Your task to perform on an android device: open wifi settings Image 0: 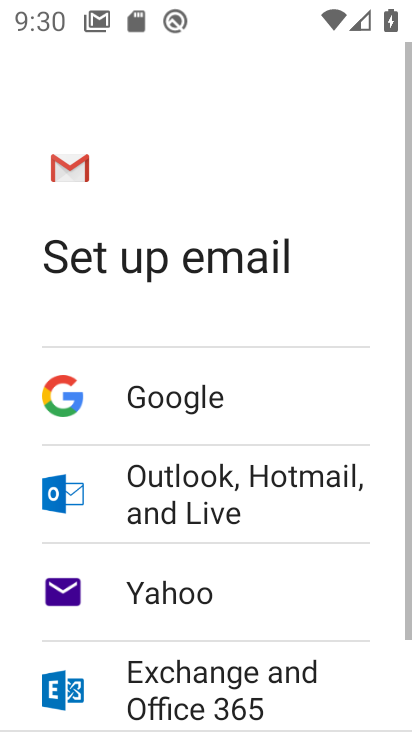
Step 0: press home button
Your task to perform on an android device: open wifi settings Image 1: 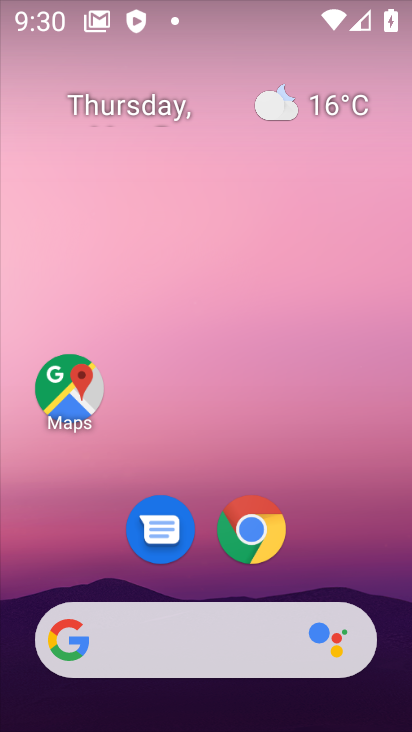
Step 1: drag from (363, 582) to (94, 207)
Your task to perform on an android device: open wifi settings Image 2: 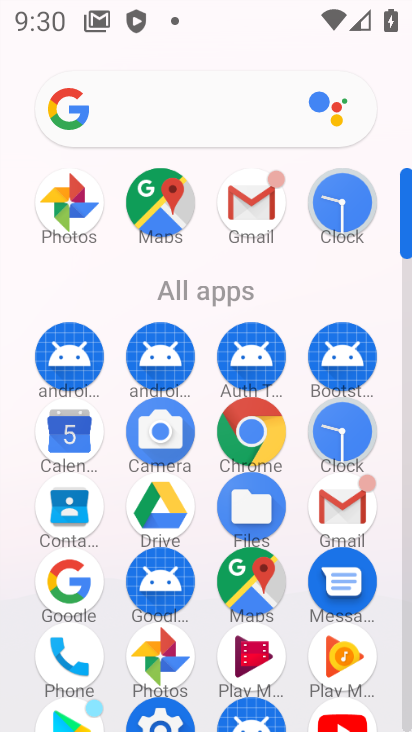
Step 2: drag from (291, 577) to (257, 175)
Your task to perform on an android device: open wifi settings Image 3: 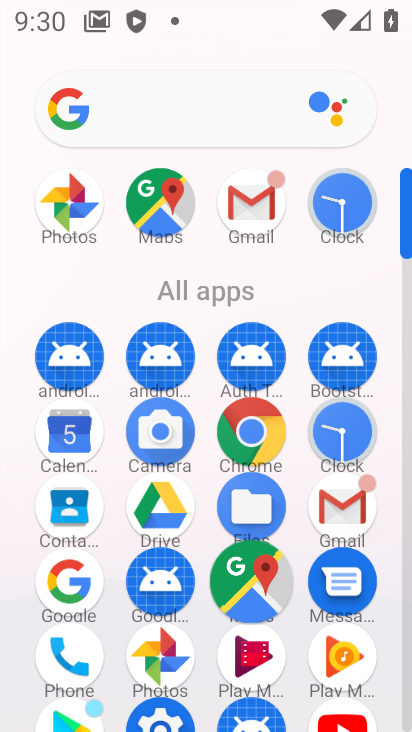
Step 3: drag from (290, 471) to (250, 36)
Your task to perform on an android device: open wifi settings Image 4: 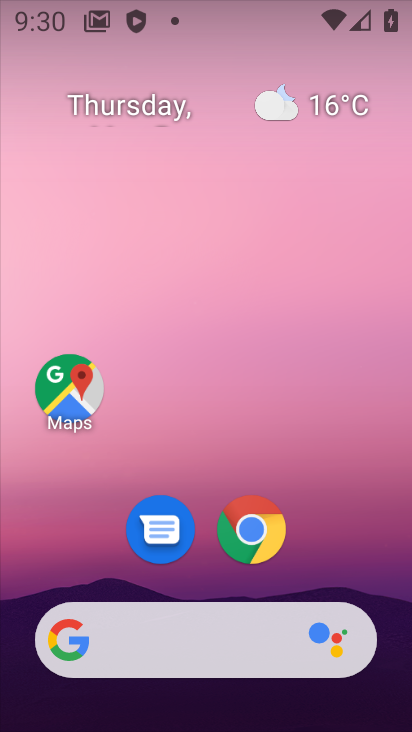
Step 4: click (318, 87)
Your task to perform on an android device: open wifi settings Image 5: 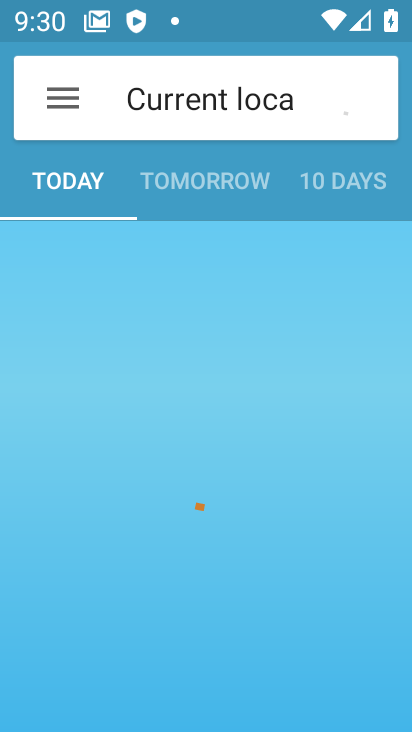
Step 5: drag from (323, 540) to (245, 40)
Your task to perform on an android device: open wifi settings Image 6: 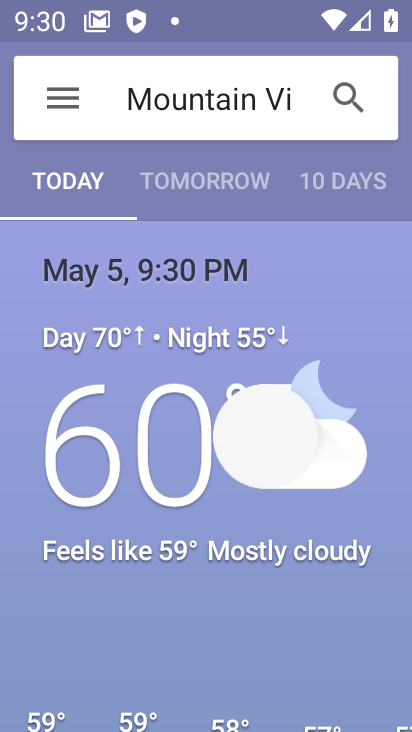
Step 6: press home button
Your task to perform on an android device: open wifi settings Image 7: 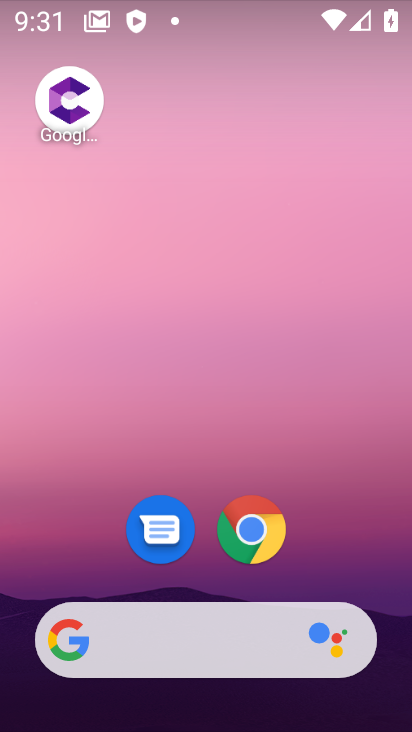
Step 7: drag from (318, 514) to (160, 6)
Your task to perform on an android device: open wifi settings Image 8: 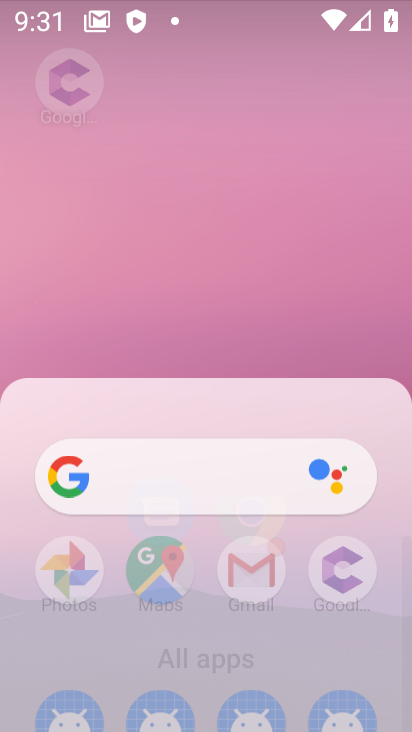
Step 8: drag from (231, 70) to (239, 27)
Your task to perform on an android device: open wifi settings Image 9: 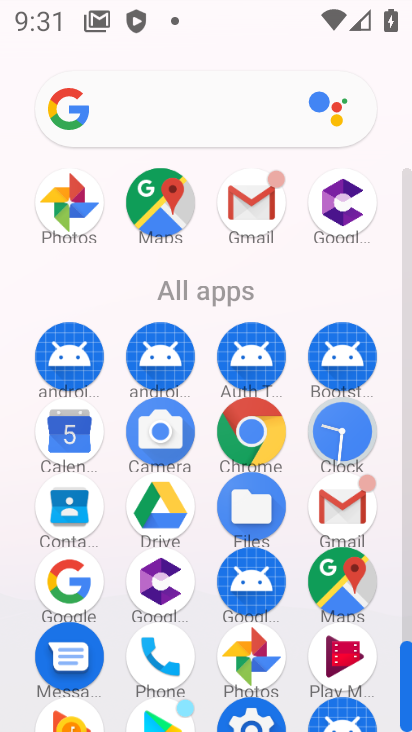
Step 9: drag from (384, 582) to (359, 89)
Your task to perform on an android device: open wifi settings Image 10: 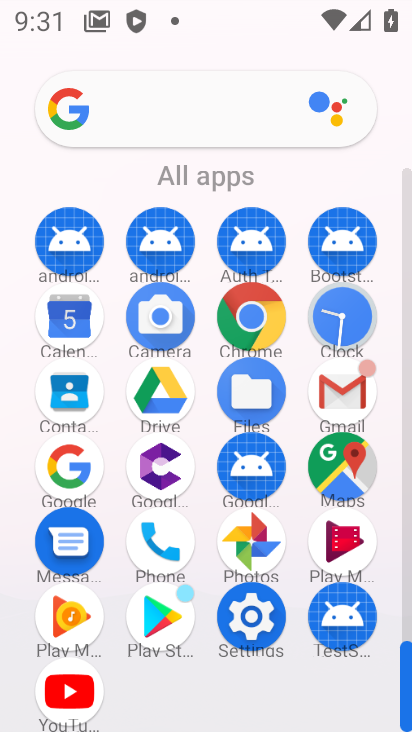
Step 10: click (246, 596)
Your task to perform on an android device: open wifi settings Image 11: 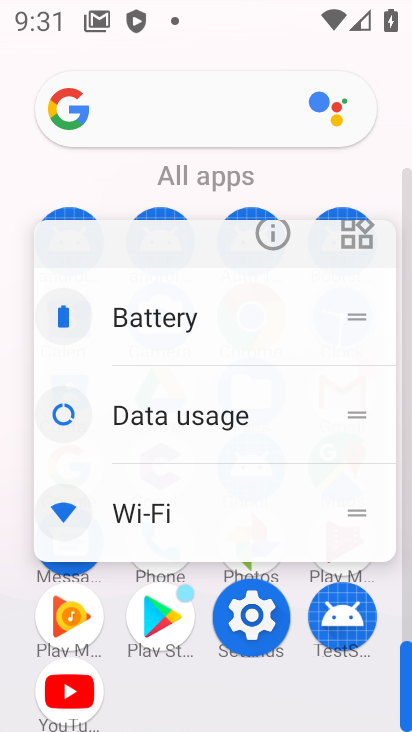
Step 11: click (255, 619)
Your task to perform on an android device: open wifi settings Image 12: 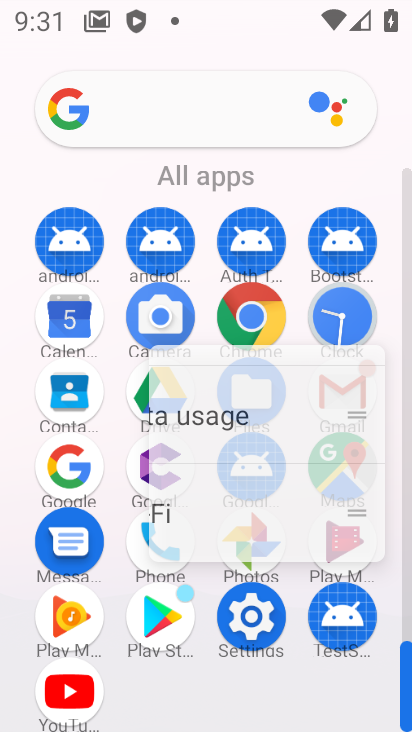
Step 12: click (255, 619)
Your task to perform on an android device: open wifi settings Image 13: 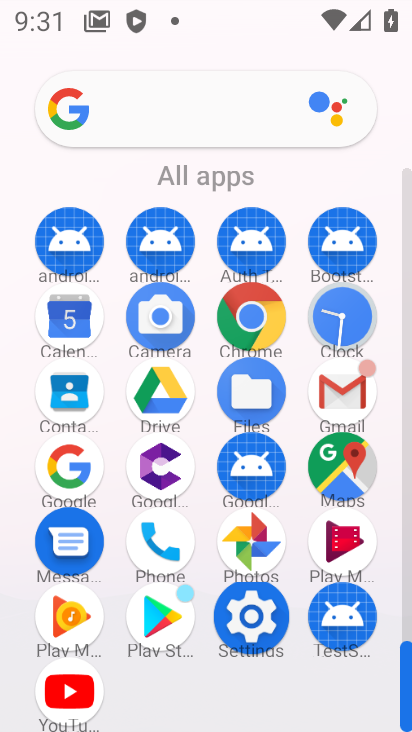
Step 13: click (253, 611)
Your task to perform on an android device: open wifi settings Image 14: 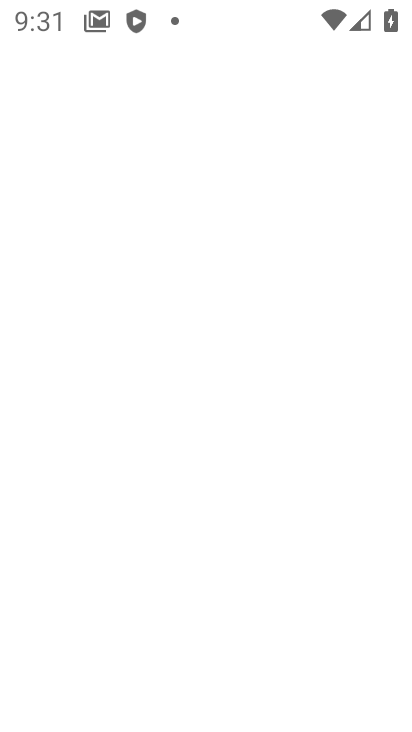
Step 14: click (250, 612)
Your task to perform on an android device: open wifi settings Image 15: 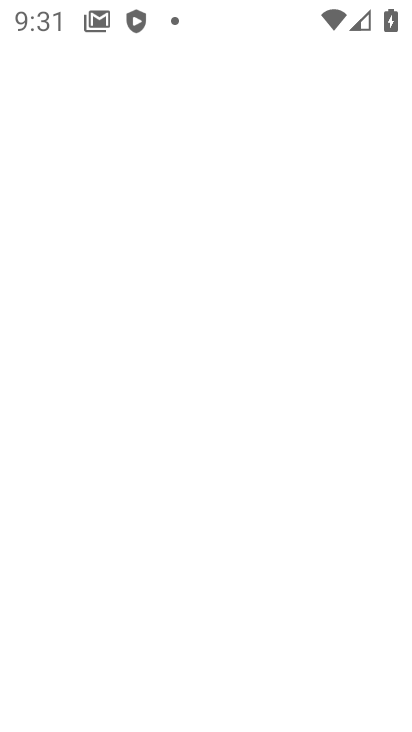
Step 15: click (250, 612)
Your task to perform on an android device: open wifi settings Image 16: 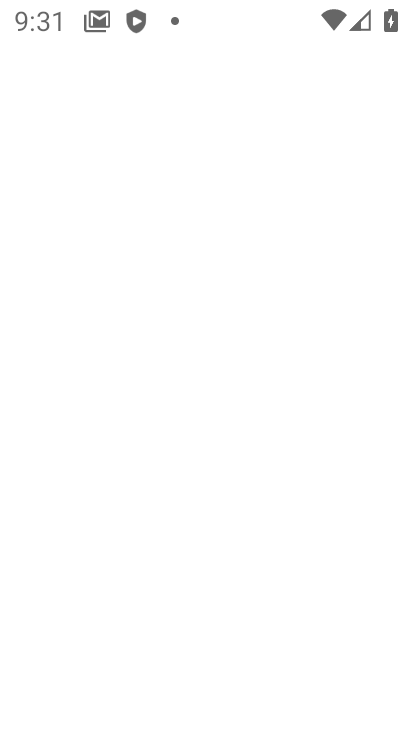
Step 16: click (251, 621)
Your task to perform on an android device: open wifi settings Image 17: 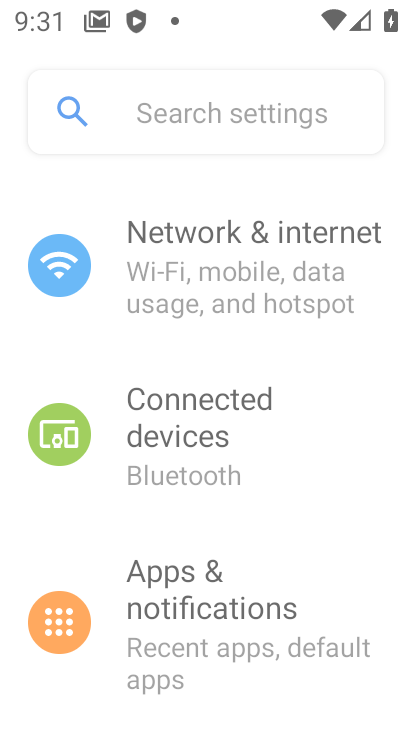
Step 17: click (251, 621)
Your task to perform on an android device: open wifi settings Image 18: 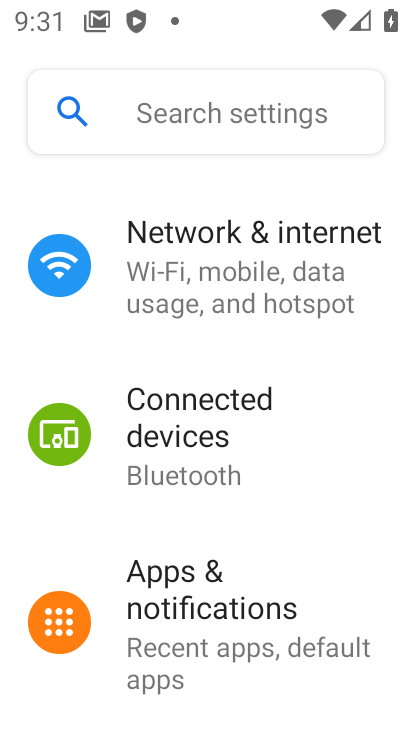
Step 18: click (253, 616)
Your task to perform on an android device: open wifi settings Image 19: 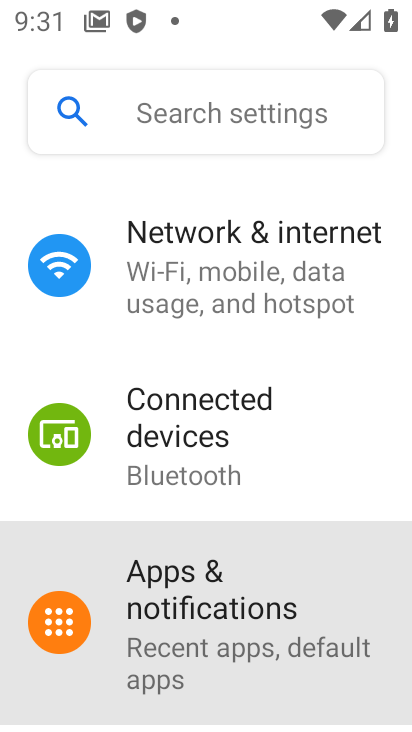
Step 19: click (250, 282)
Your task to perform on an android device: open wifi settings Image 20: 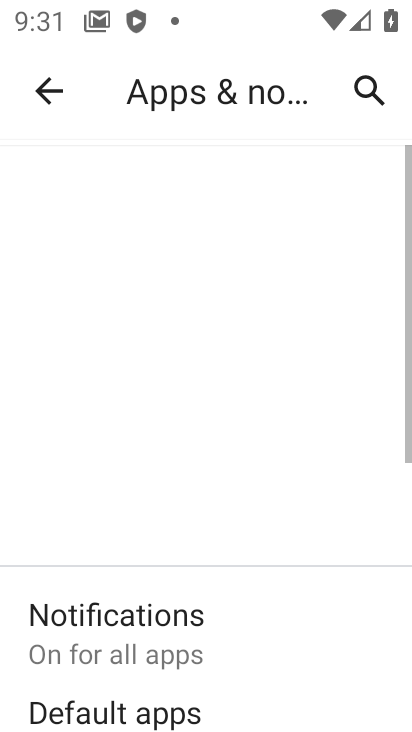
Step 20: click (250, 282)
Your task to perform on an android device: open wifi settings Image 21: 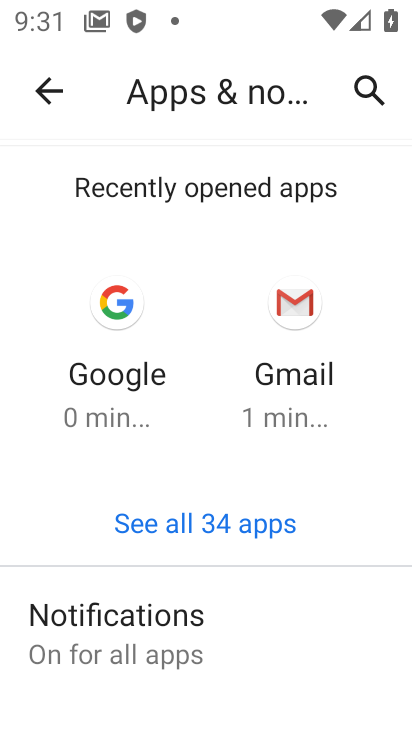
Step 21: task complete